Your task to perform on an android device: toggle priority inbox in the gmail app Image 0: 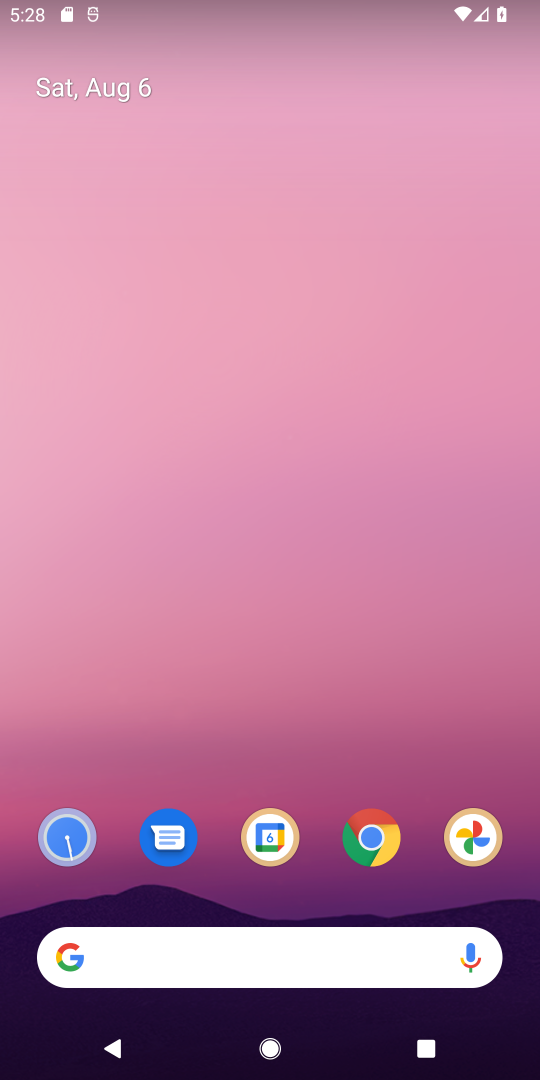
Step 0: drag from (204, 509) to (242, 205)
Your task to perform on an android device: toggle priority inbox in the gmail app Image 1: 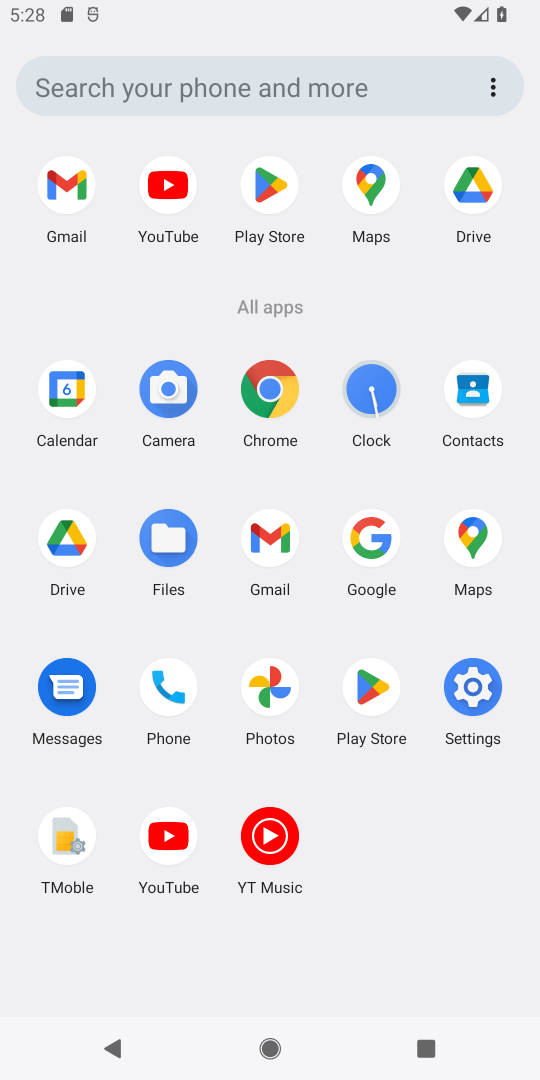
Step 1: click (268, 538)
Your task to perform on an android device: toggle priority inbox in the gmail app Image 2: 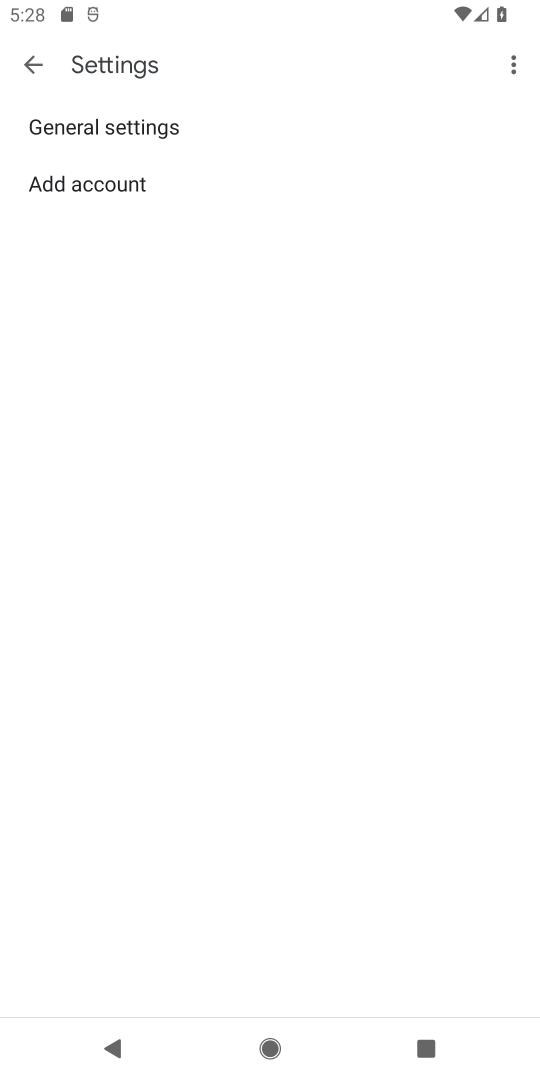
Step 2: task complete